Your task to perform on an android device: Toggle the flashlight Image 0: 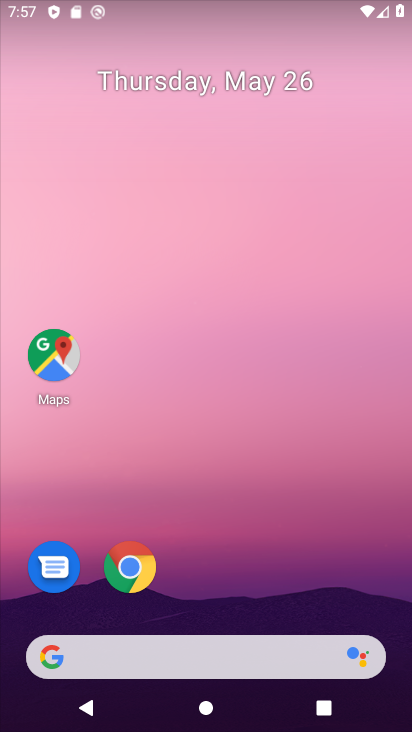
Step 0: drag from (246, 11) to (298, 623)
Your task to perform on an android device: Toggle the flashlight Image 1: 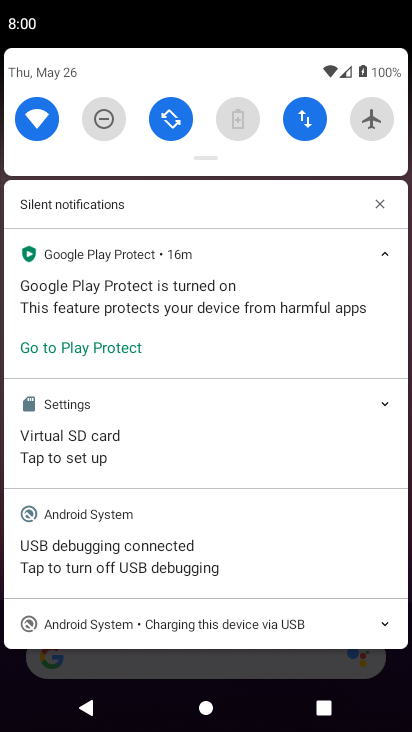
Step 1: task complete